Your task to perform on an android device: Open wifi settings Image 0: 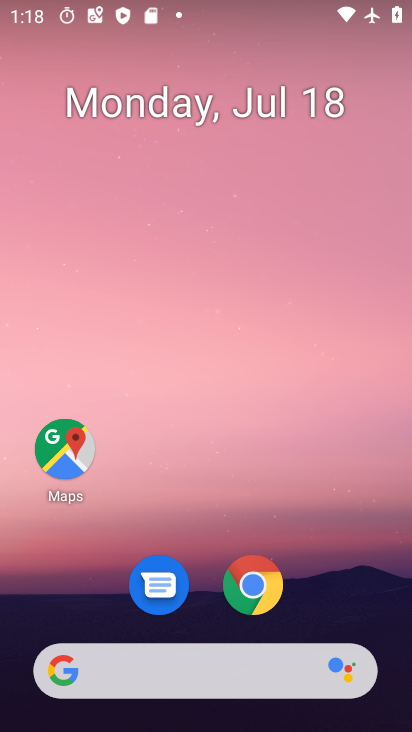
Step 0: press home button
Your task to perform on an android device: Open wifi settings Image 1: 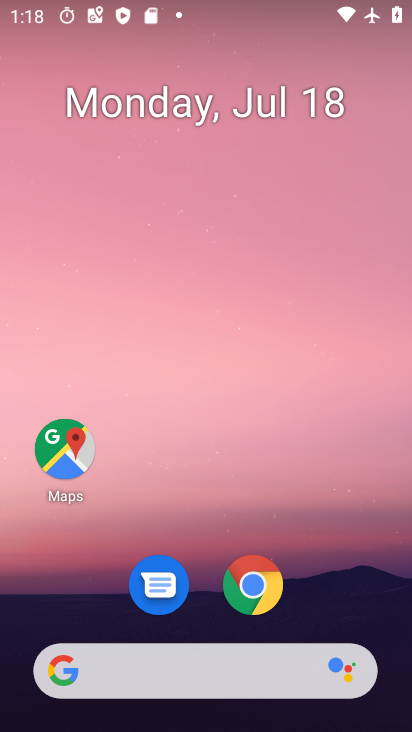
Step 1: drag from (183, 672) to (281, 81)
Your task to perform on an android device: Open wifi settings Image 2: 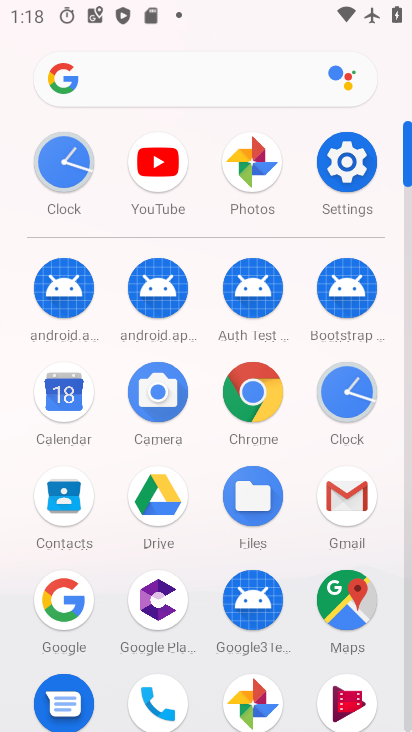
Step 2: click (354, 181)
Your task to perform on an android device: Open wifi settings Image 3: 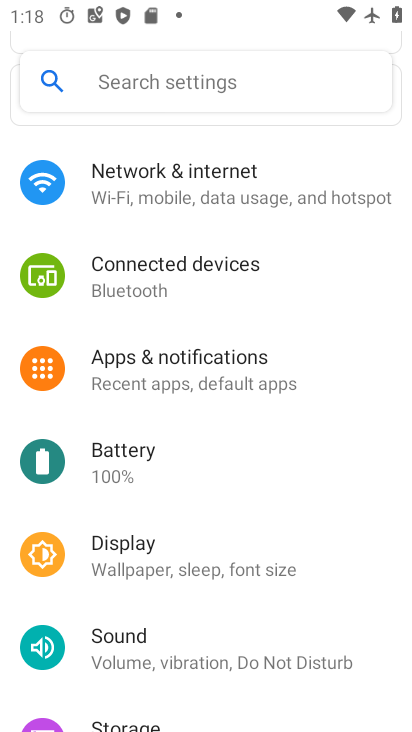
Step 3: click (219, 188)
Your task to perform on an android device: Open wifi settings Image 4: 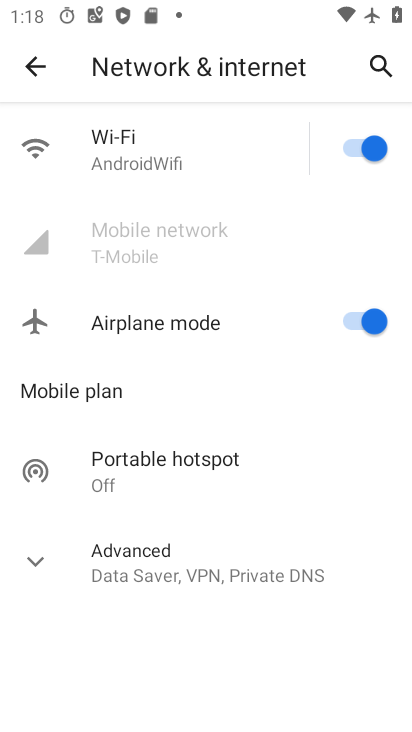
Step 4: click (133, 155)
Your task to perform on an android device: Open wifi settings Image 5: 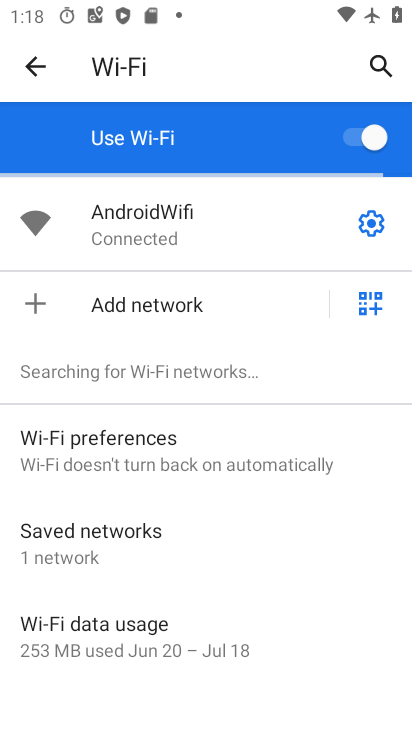
Step 5: task complete